Your task to perform on an android device: Go to Android settings Image 0: 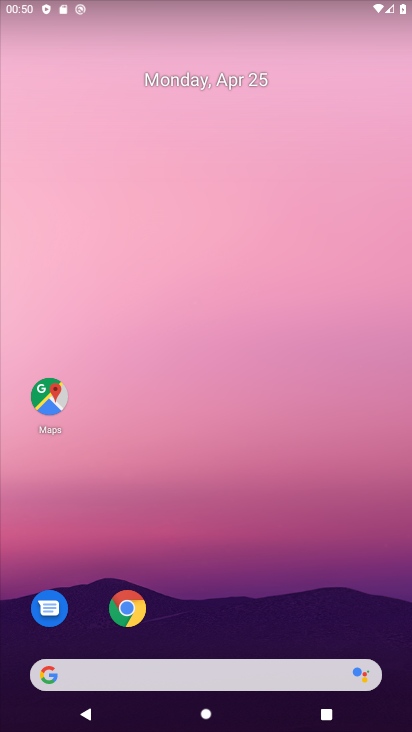
Step 0: drag from (249, 616) to (214, 129)
Your task to perform on an android device: Go to Android settings Image 1: 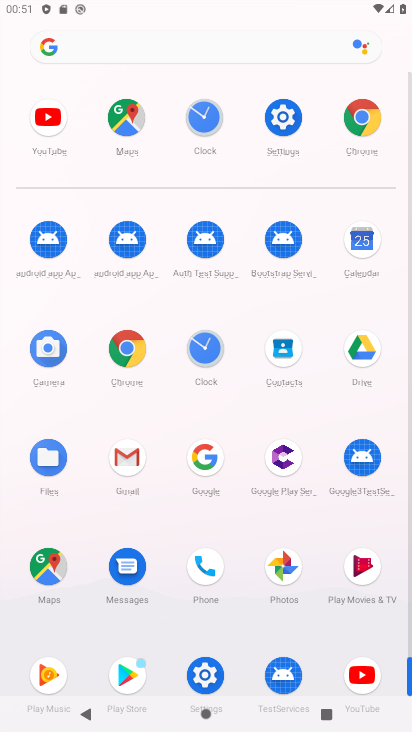
Step 1: click (286, 122)
Your task to perform on an android device: Go to Android settings Image 2: 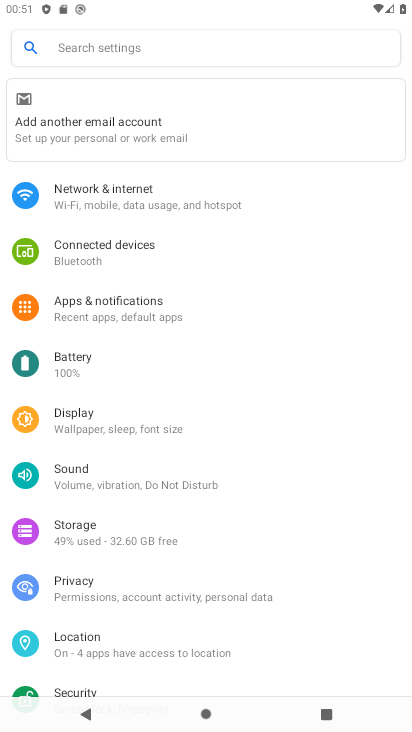
Step 2: task complete